Your task to perform on an android device: toggle wifi Image 0: 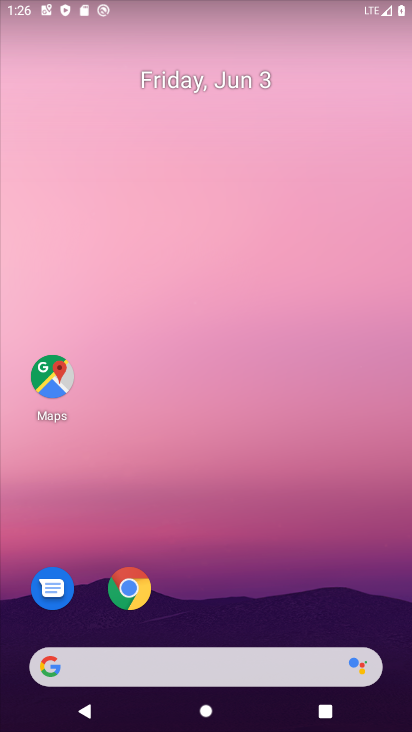
Step 0: drag from (276, 593) to (315, 144)
Your task to perform on an android device: toggle wifi Image 1: 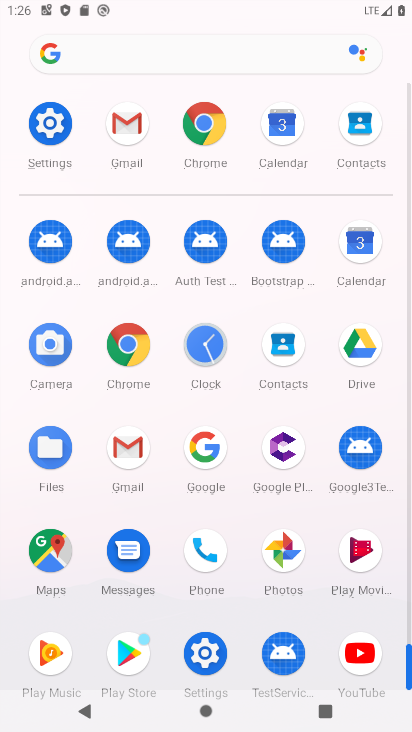
Step 1: click (48, 139)
Your task to perform on an android device: toggle wifi Image 2: 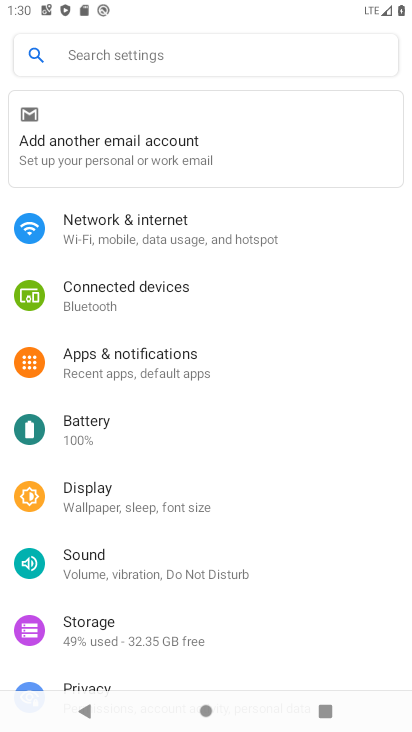
Step 2: click (102, 229)
Your task to perform on an android device: toggle wifi Image 3: 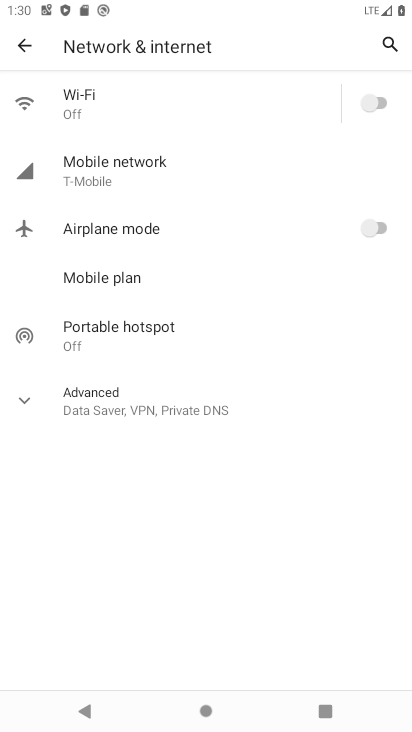
Step 3: click (364, 102)
Your task to perform on an android device: toggle wifi Image 4: 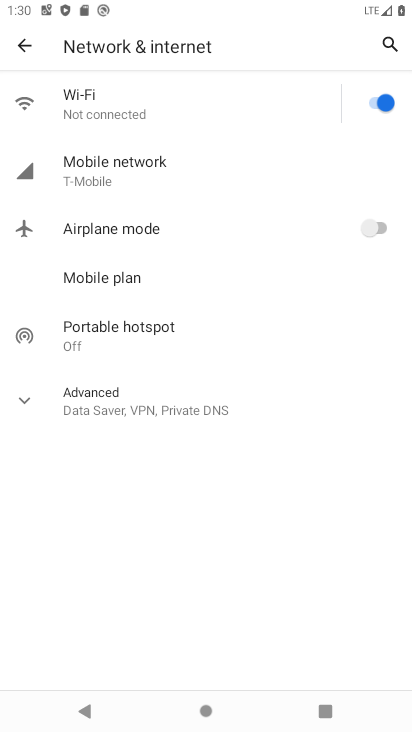
Step 4: task complete